Your task to perform on an android device: Open Wikipedia Image 0: 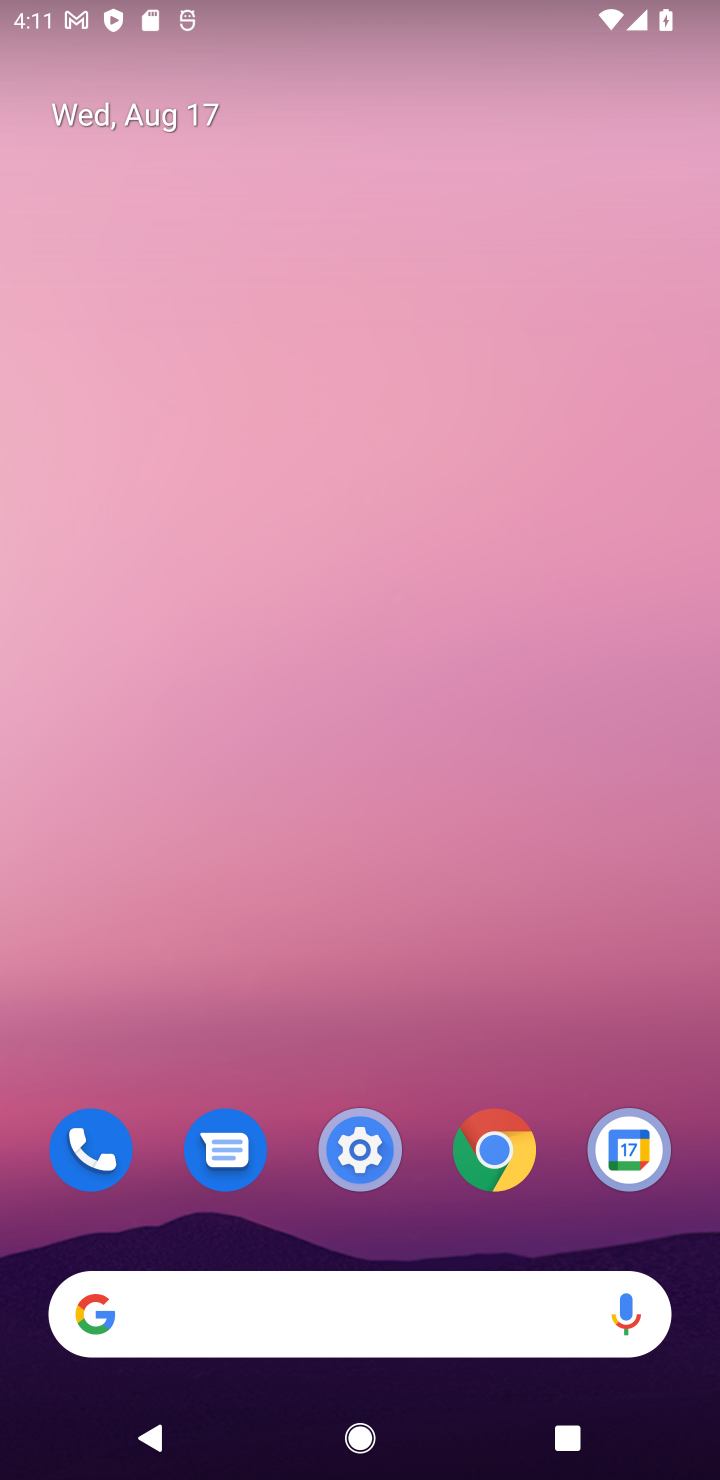
Step 0: drag from (681, 1219) to (460, 87)
Your task to perform on an android device: Open Wikipedia Image 1: 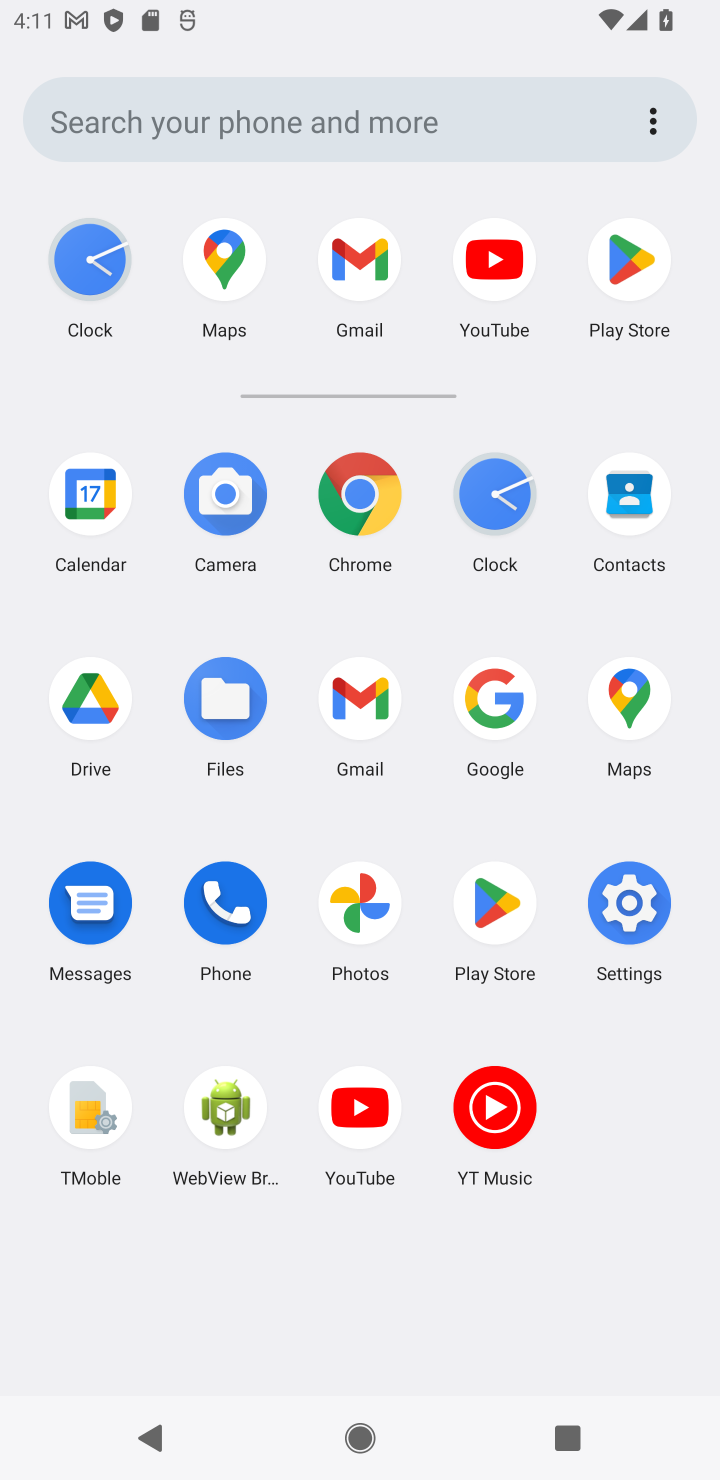
Step 1: click (492, 734)
Your task to perform on an android device: Open Wikipedia Image 2: 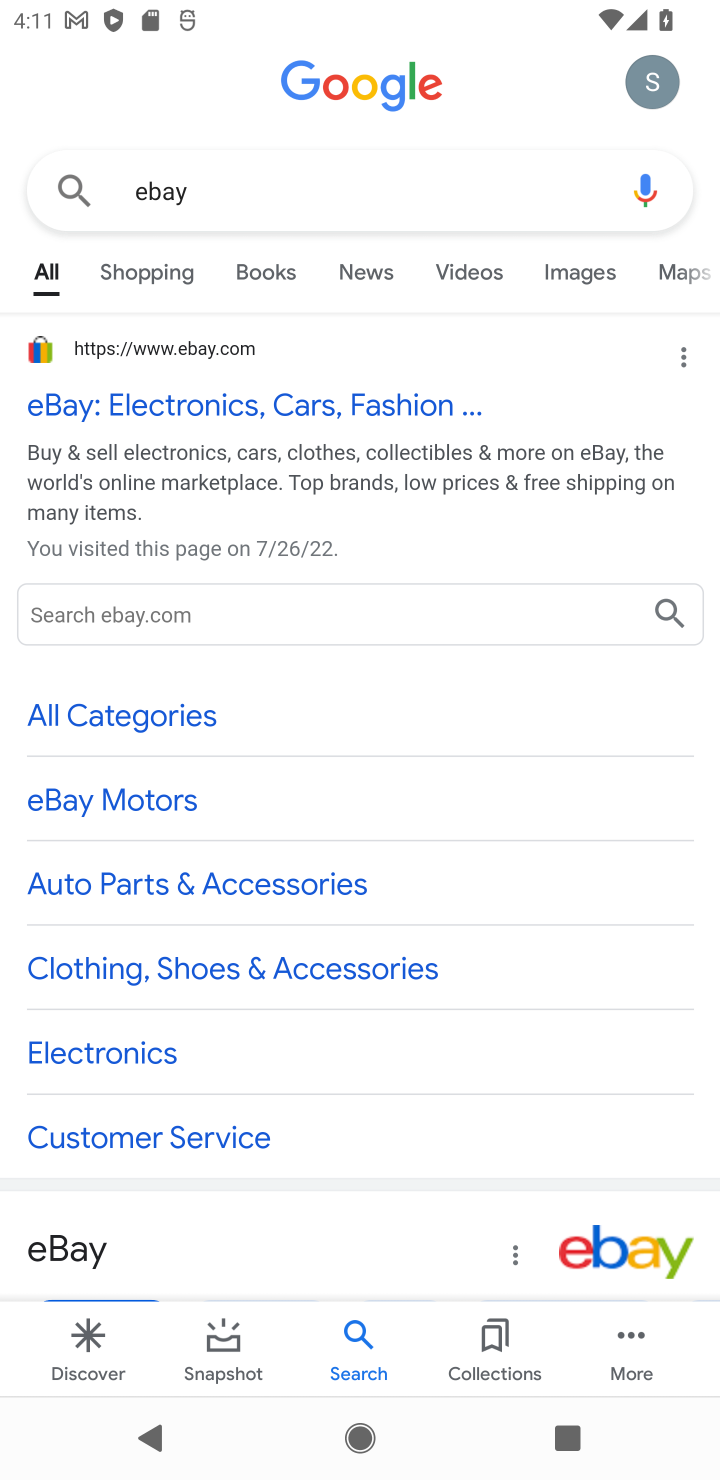
Step 2: press back button
Your task to perform on an android device: Open Wikipedia Image 3: 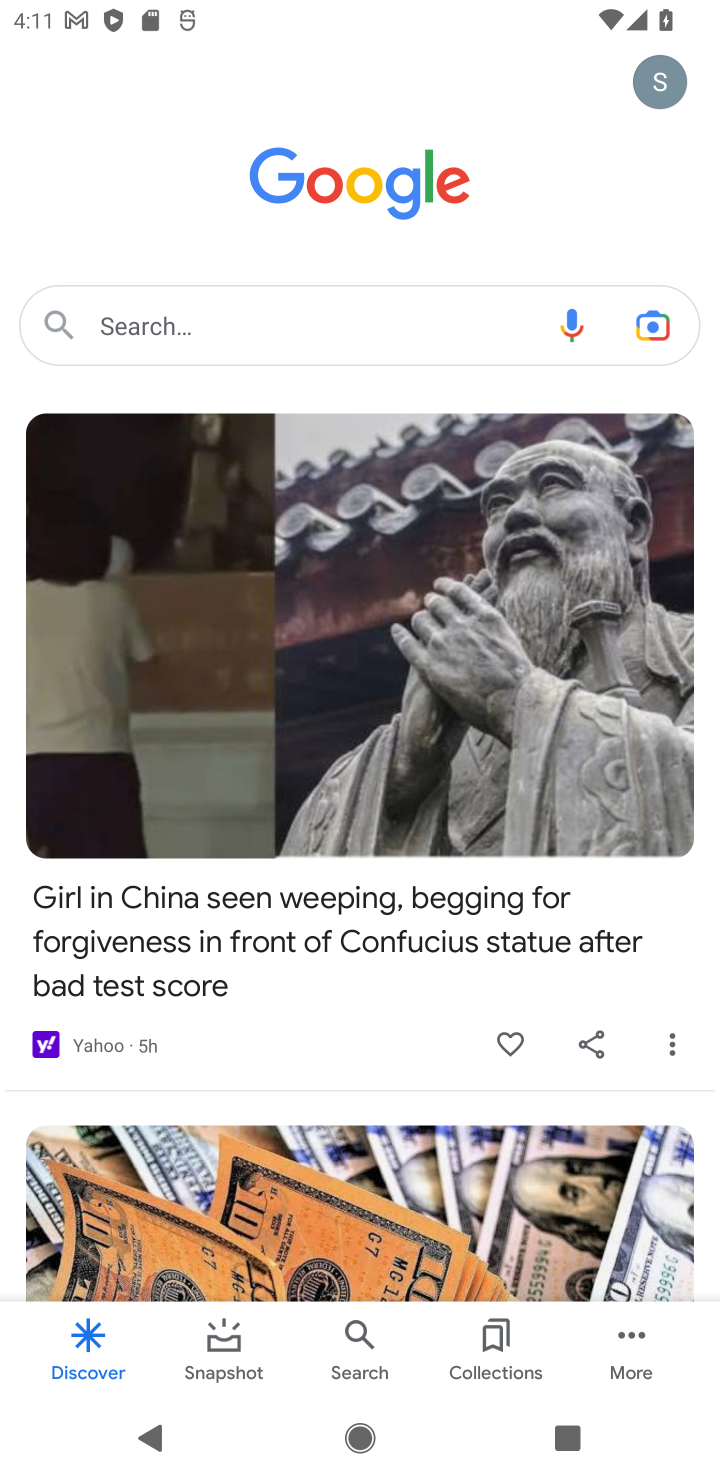
Step 3: click (203, 341)
Your task to perform on an android device: Open Wikipedia Image 4: 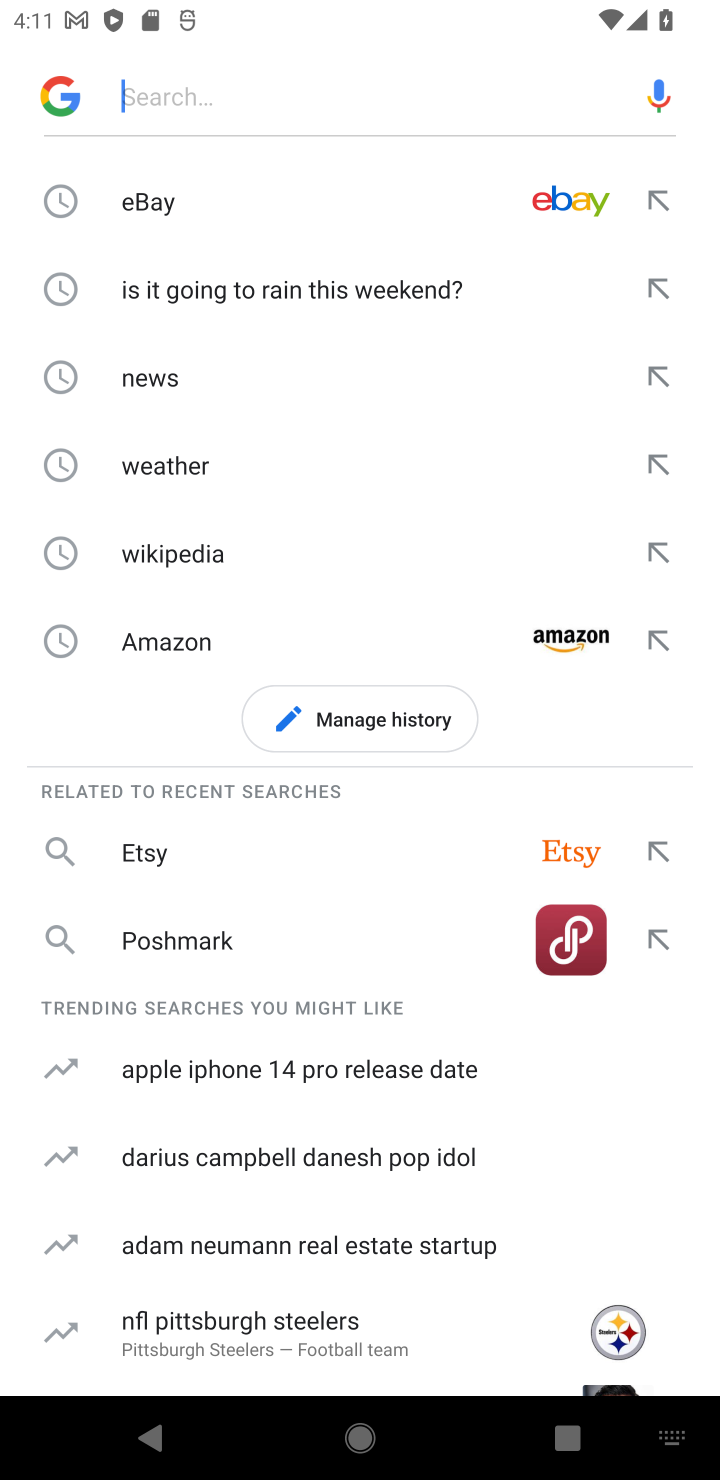
Step 4: click (182, 562)
Your task to perform on an android device: Open Wikipedia Image 5: 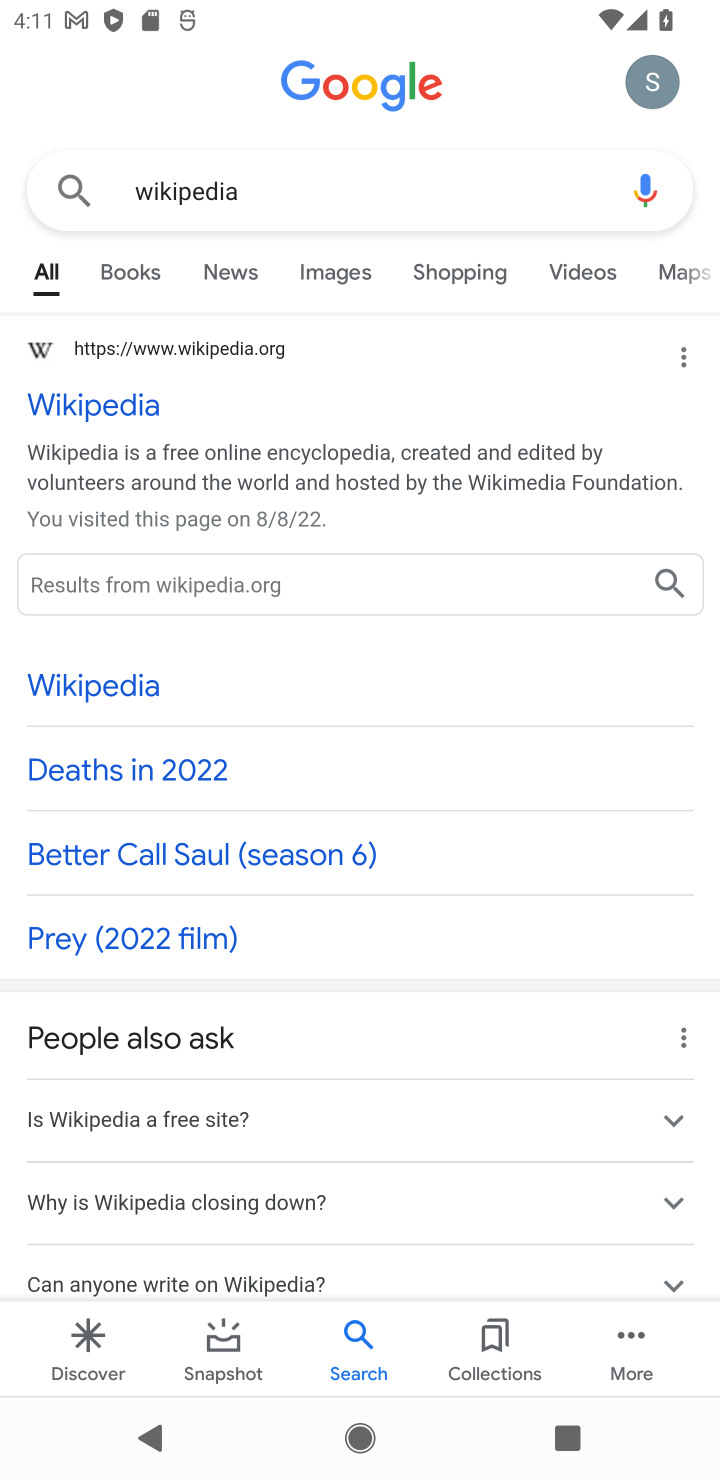
Step 5: task complete